Your task to perform on an android device: open chrome and create a bookmark for the current page Image 0: 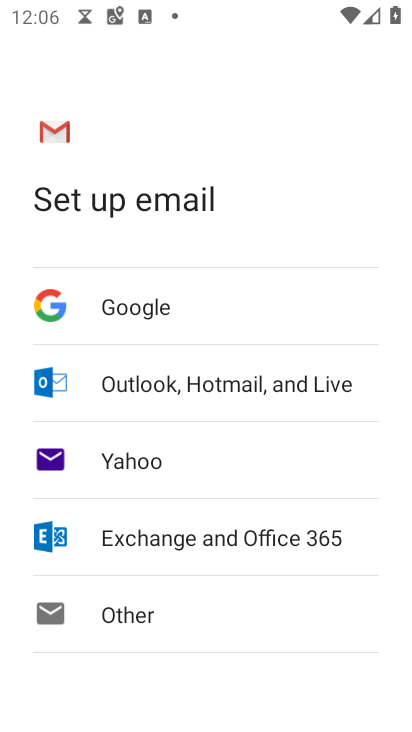
Step 0: press home button
Your task to perform on an android device: open chrome and create a bookmark for the current page Image 1: 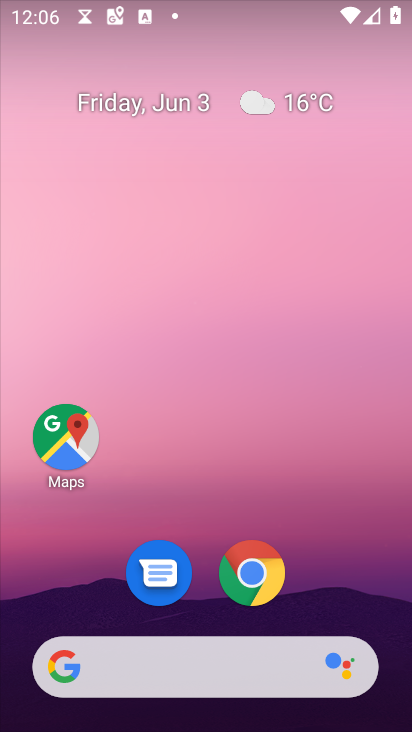
Step 1: drag from (347, 537) to (256, 37)
Your task to perform on an android device: open chrome and create a bookmark for the current page Image 2: 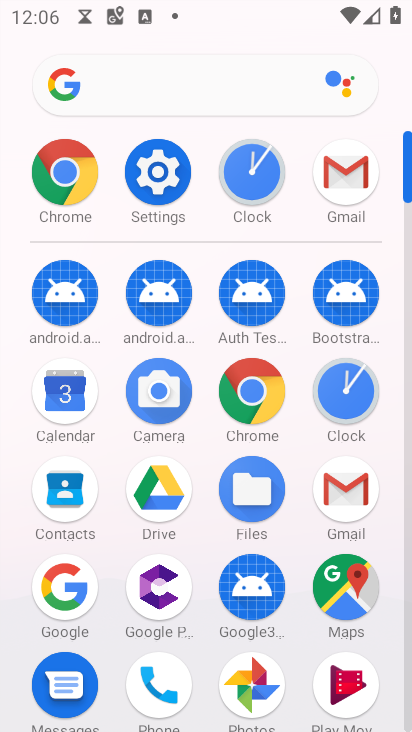
Step 2: click (60, 172)
Your task to perform on an android device: open chrome and create a bookmark for the current page Image 3: 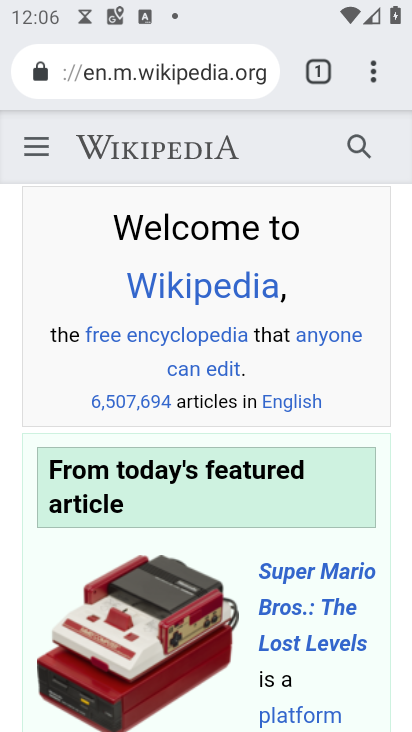
Step 3: task complete